Your task to perform on an android device: Toggle the flashlight Image 0: 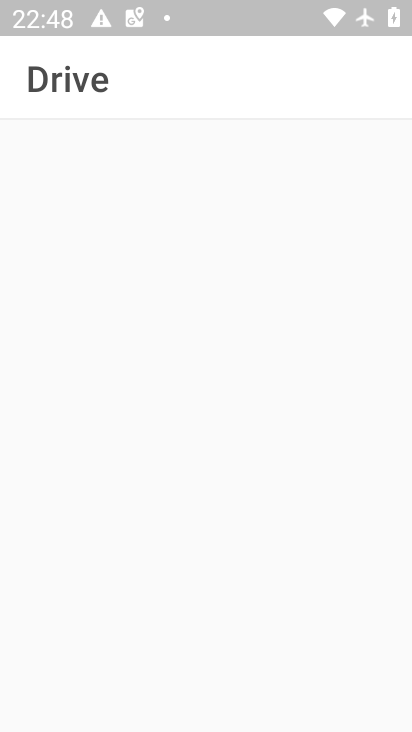
Step 0: press home button
Your task to perform on an android device: Toggle the flashlight Image 1: 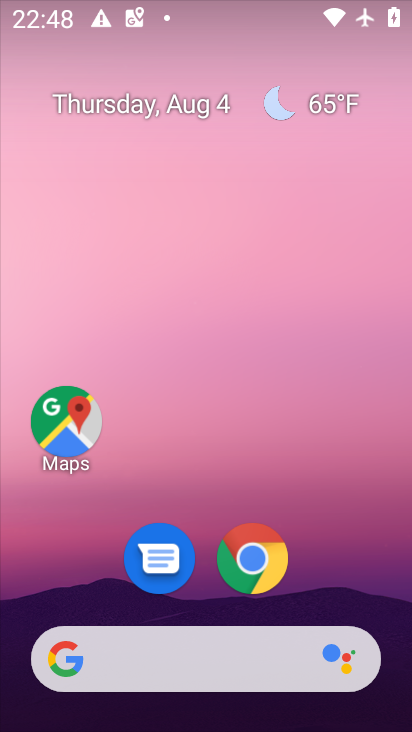
Step 1: drag from (354, 564) to (327, 150)
Your task to perform on an android device: Toggle the flashlight Image 2: 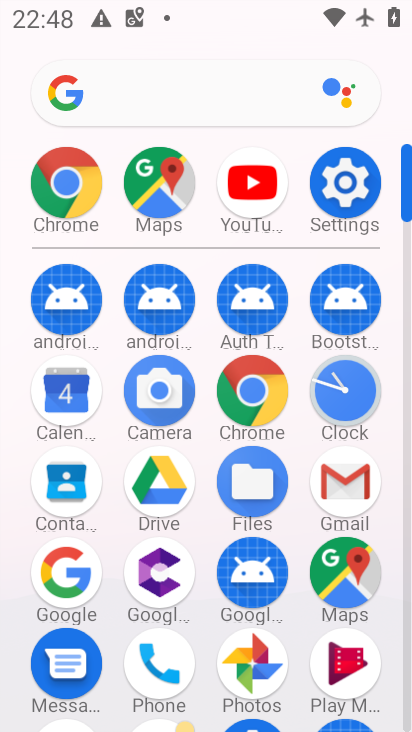
Step 2: click (362, 179)
Your task to perform on an android device: Toggle the flashlight Image 3: 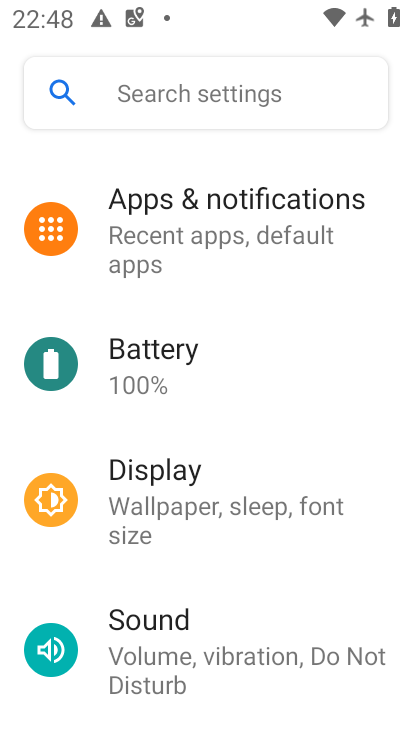
Step 3: click (195, 489)
Your task to perform on an android device: Toggle the flashlight Image 4: 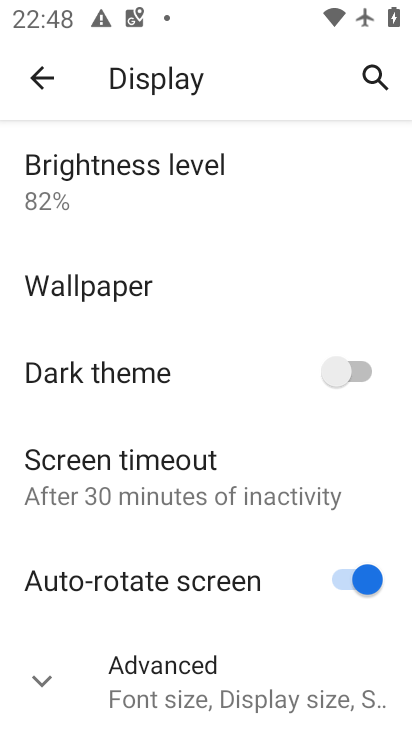
Step 4: click (213, 478)
Your task to perform on an android device: Toggle the flashlight Image 5: 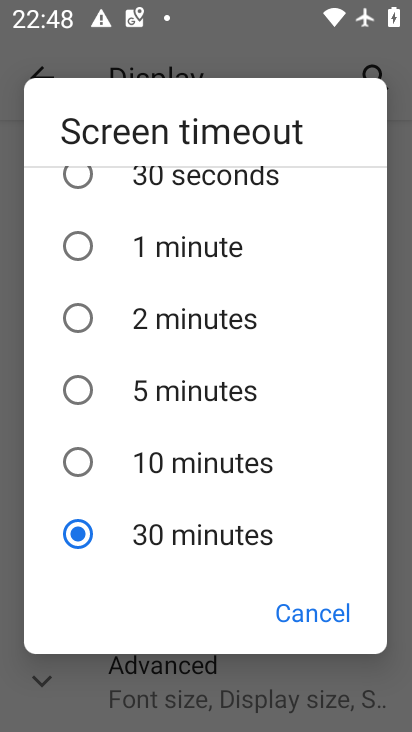
Step 5: task complete